Your task to perform on an android device: Search for Italian restaurants on Maps Image 0: 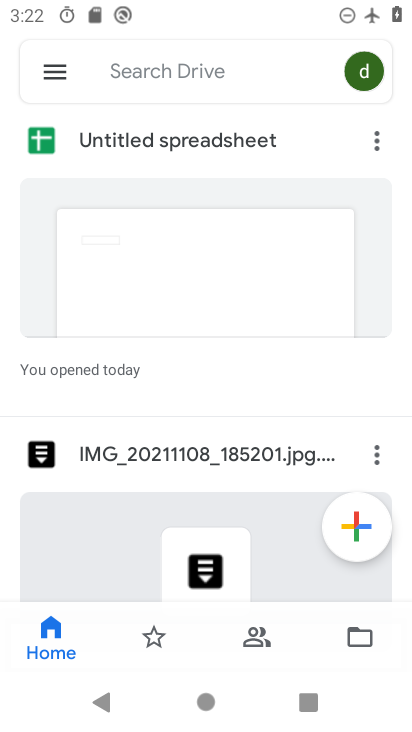
Step 0: press home button
Your task to perform on an android device: Search for Italian restaurants on Maps Image 1: 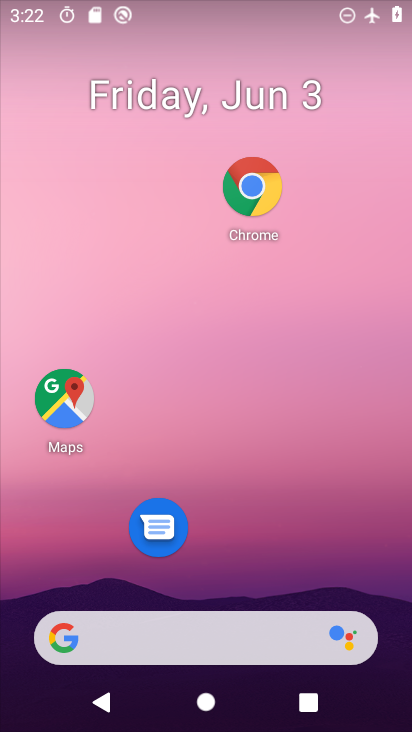
Step 1: click (55, 406)
Your task to perform on an android device: Search for Italian restaurants on Maps Image 2: 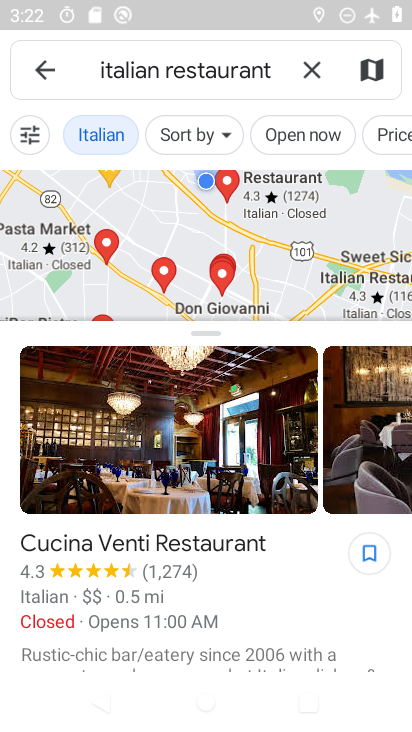
Step 2: task complete